Your task to perform on an android device: turn on translation in the chrome app Image 0: 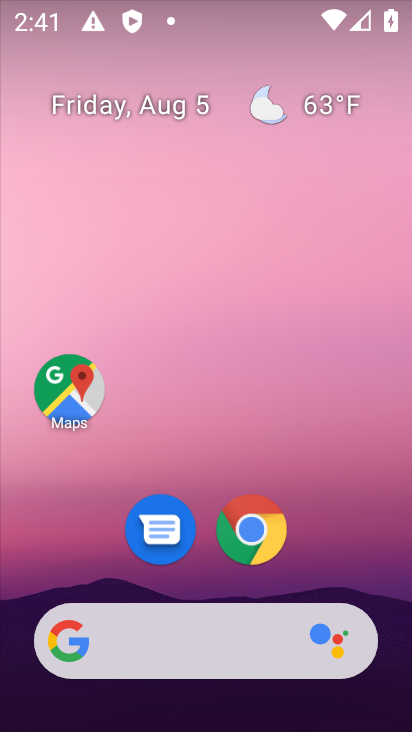
Step 0: press home button
Your task to perform on an android device: turn on translation in the chrome app Image 1: 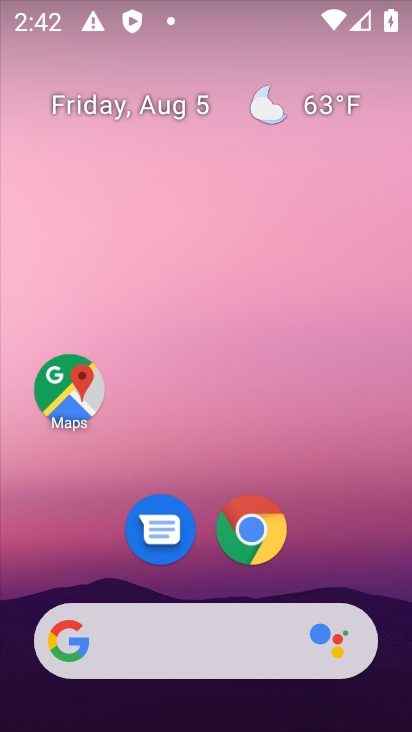
Step 1: drag from (197, 579) to (193, 120)
Your task to perform on an android device: turn on translation in the chrome app Image 2: 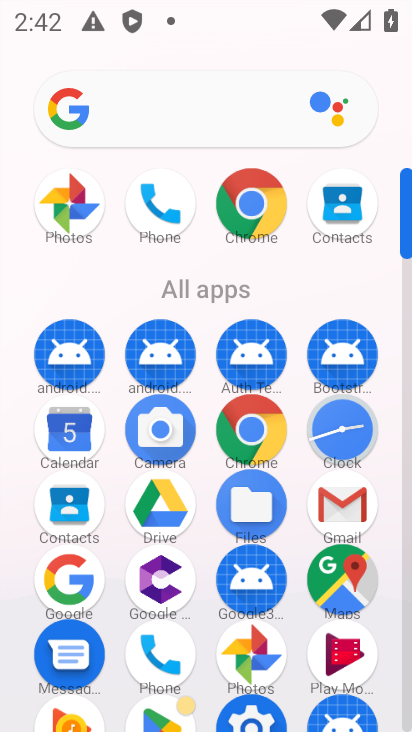
Step 2: click (250, 202)
Your task to perform on an android device: turn on translation in the chrome app Image 3: 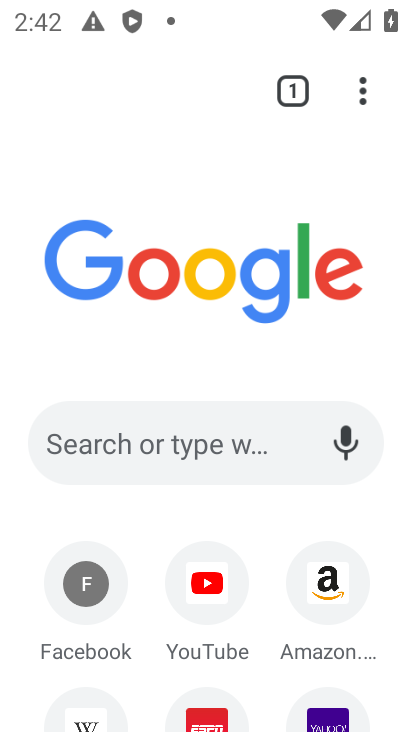
Step 3: drag from (361, 92) to (145, 574)
Your task to perform on an android device: turn on translation in the chrome app Image 4: 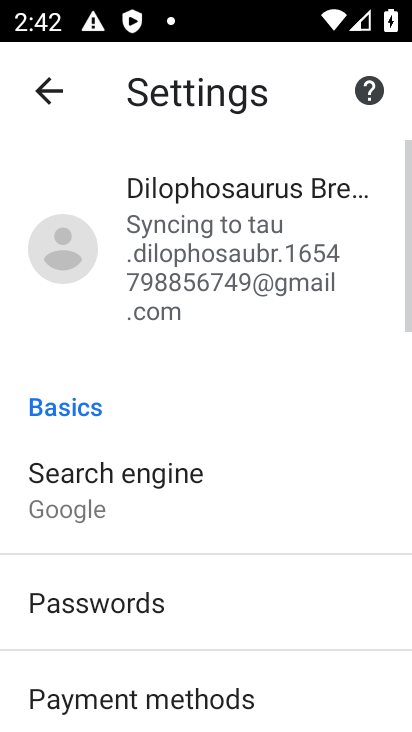
Step 4: drag from (327, 333) to (312, 234)
Your task to perform on an android device: turn on translation in the chrome app Image 5: 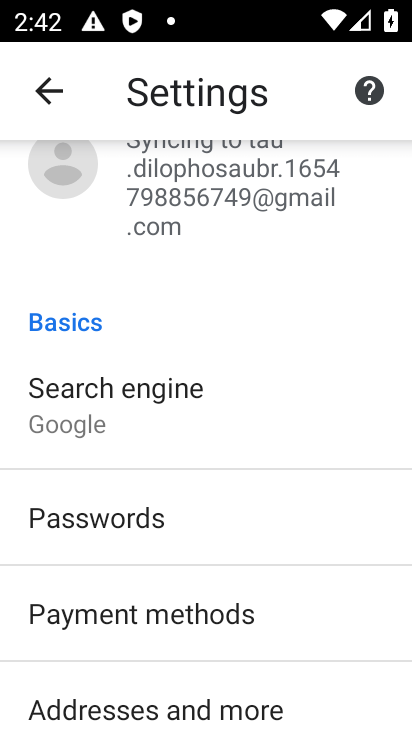
Step 5: drag from (319, 691) to (282, 359)
Your task to perform on an android device: turn on translation in the chrome app Image 6: 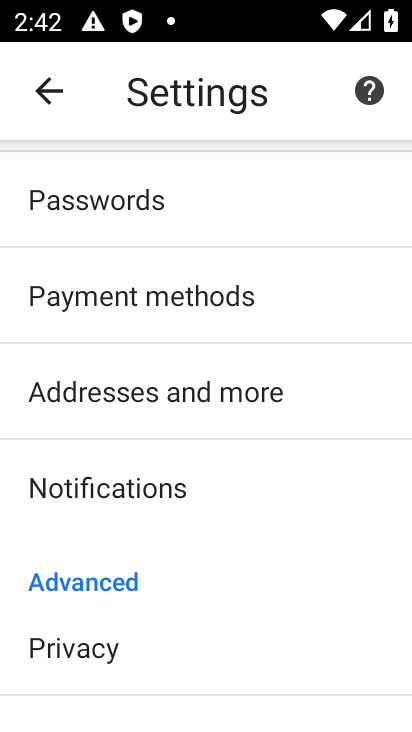
Step 6: drag from (272, 632) to (232, 308)
Your task to perform on an android device: turn on translation in the chrome app Image 7: 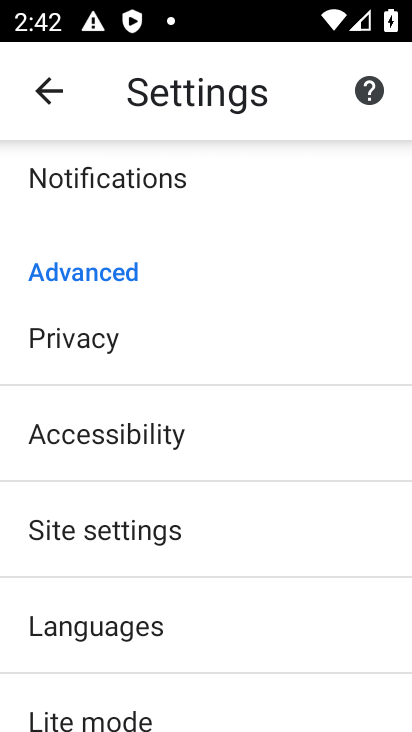
Step 7: click (98, 630)
Your task to perform on an android device: turn on translation in the chrome app Image 8: 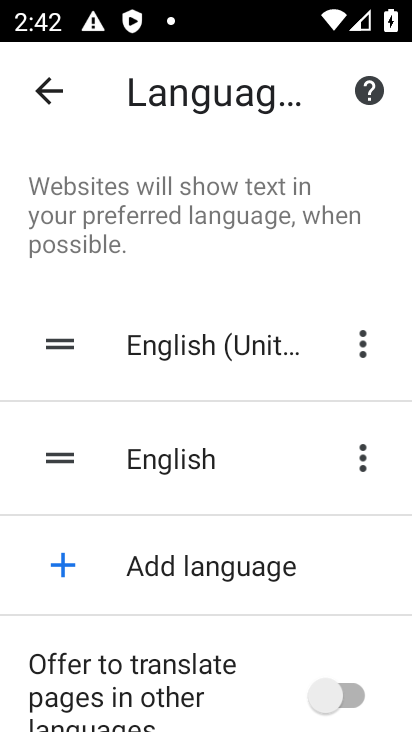
Step 8: click (323, 691)
Your task to perform on an android device: turn on translation in the chrome app Image 9: 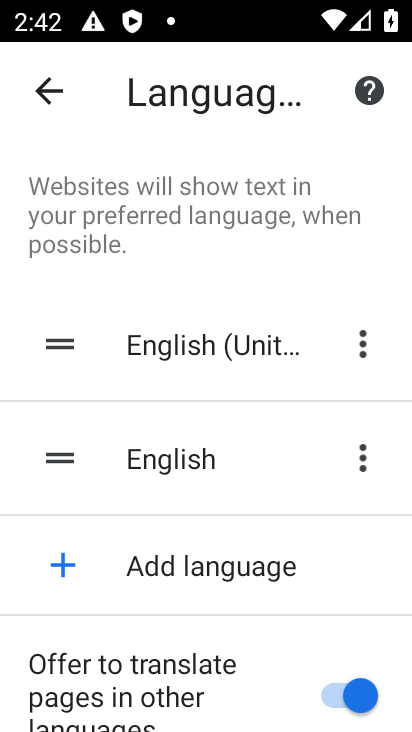
Step 9: task complete